Your task to perform on an android device: Open ESPN.com Image 0: 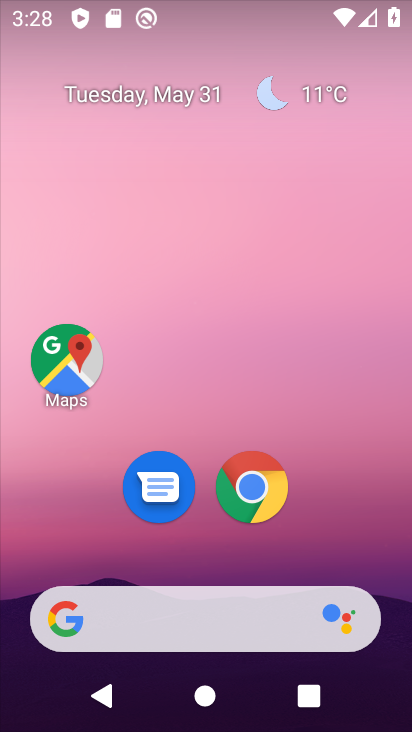
Step 0: click (252, 485)
Your task to perform on an android device: Open ESPN.com Image 1: 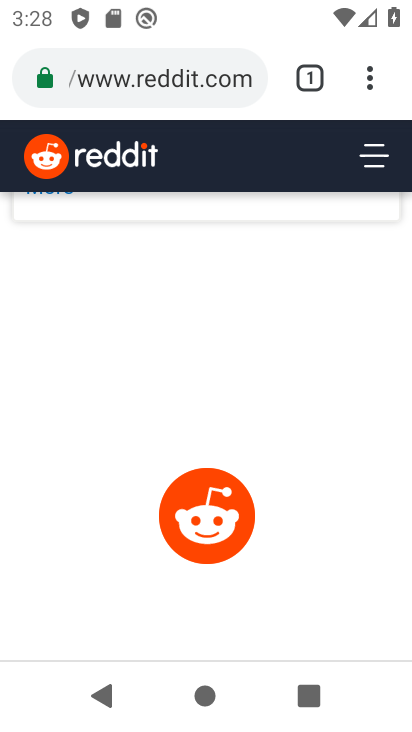
Step 1: click (234, 80)
Your task to perform on an android device: Open ESPN.com Image 2: 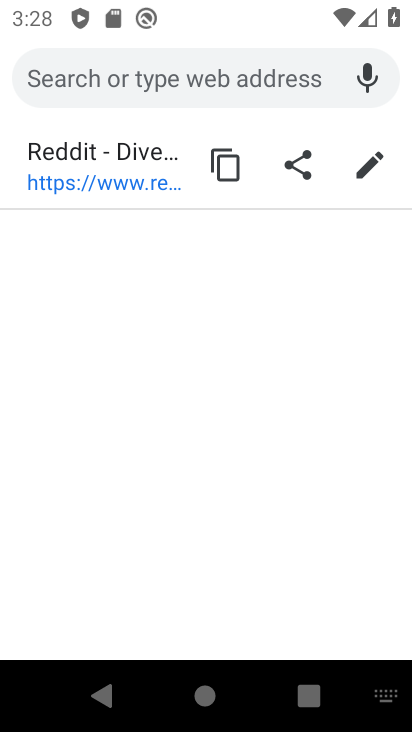
Step 2: type "ESPN.com"
Your task to perform on an android device: Open ESPN.com Image 3: 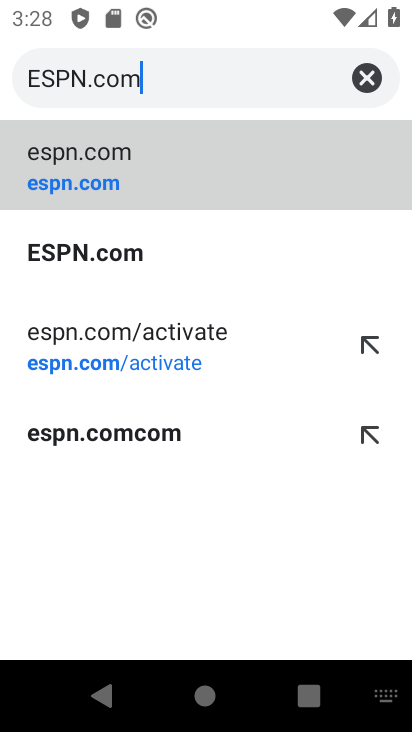
Step 3: click (76, 251)
Your task to perform on an android device: Open ESPN.com Image 4: 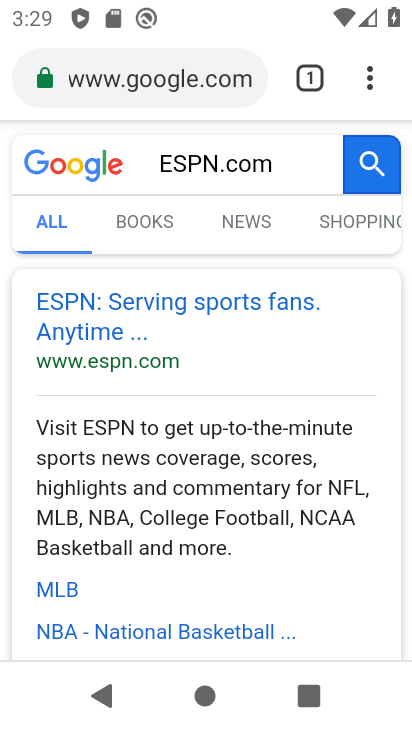
Step 4: click (56, 298)
Your task to perform on an android device: Open ESPN.com Image 5: 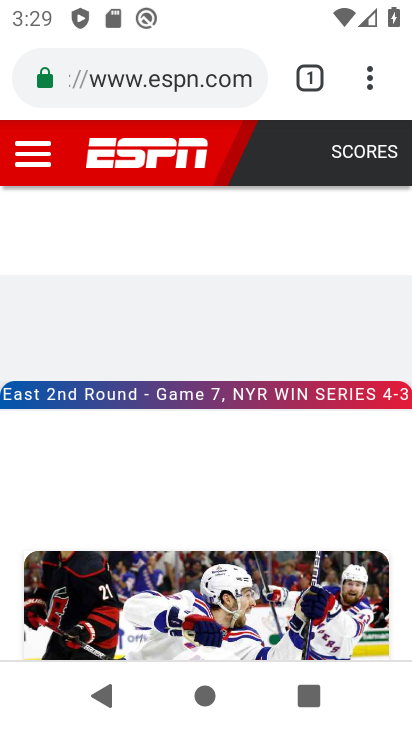
Step 5: task complete